Your task to perform on an android device: change the clock style Image 0: 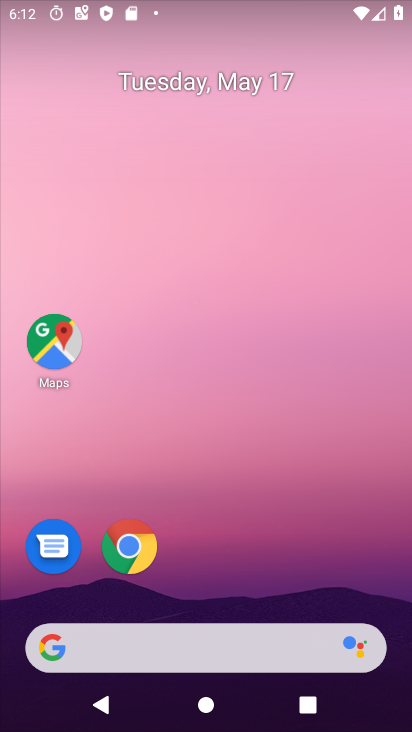
Step 0: click (126, 560)
Your task to perform on an android device: change the clock style Image 1: 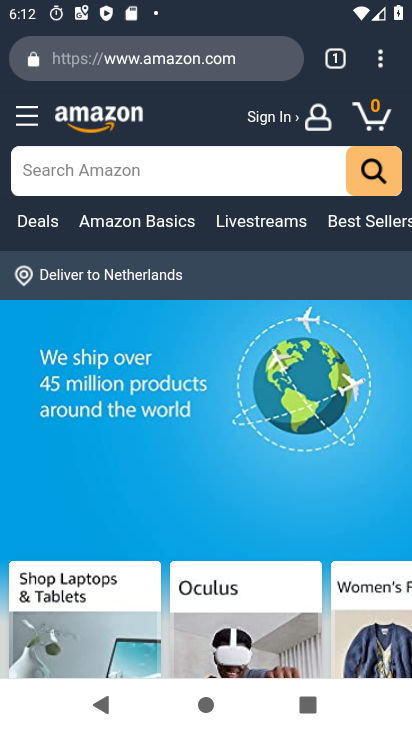
Step 1: press home button
Your task to perform on an android device: change the clock style Image 2: 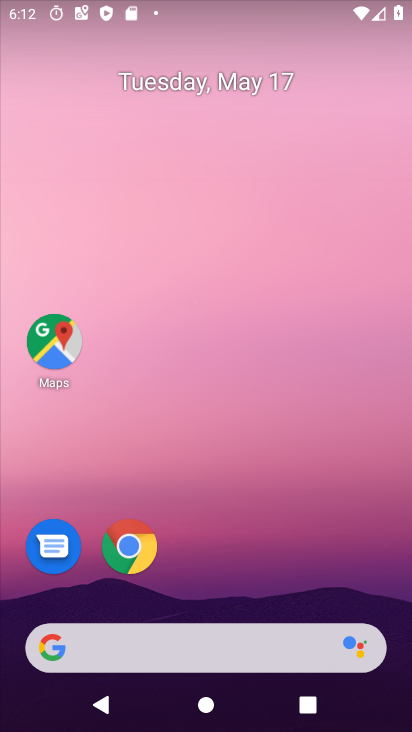
Step 2: drag from (222, 450) to (225, 194)
Your task to perform on an android device: change the clock style Image 3: 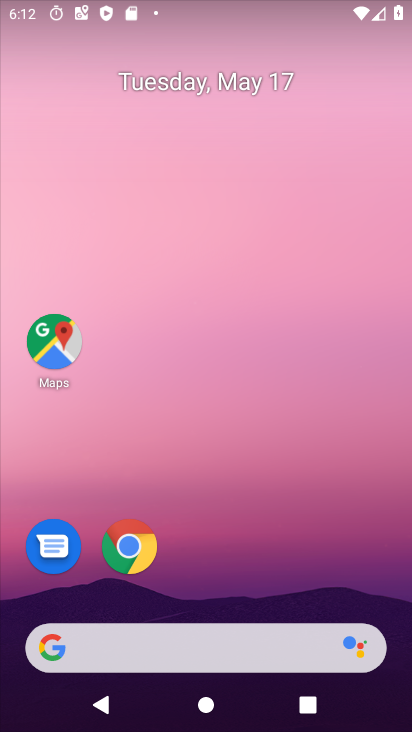
Step 3: drag from (199, 464) to (195, 134)
Your task to perform on an android device: change the clock style Image 4: 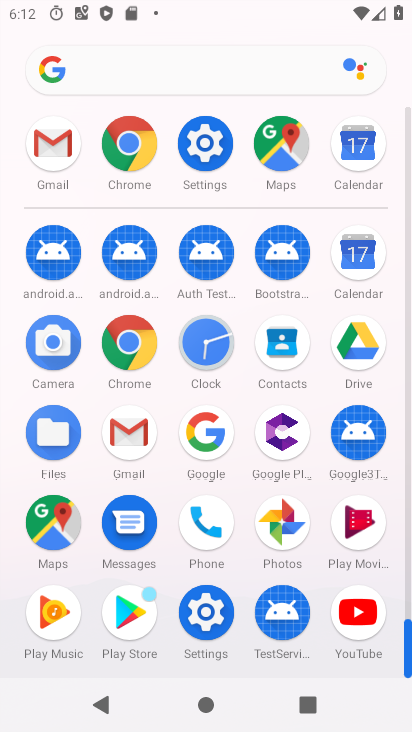
Step 4: click (202, 341)
Your task to perform on an android device: change the clock style Image 5: 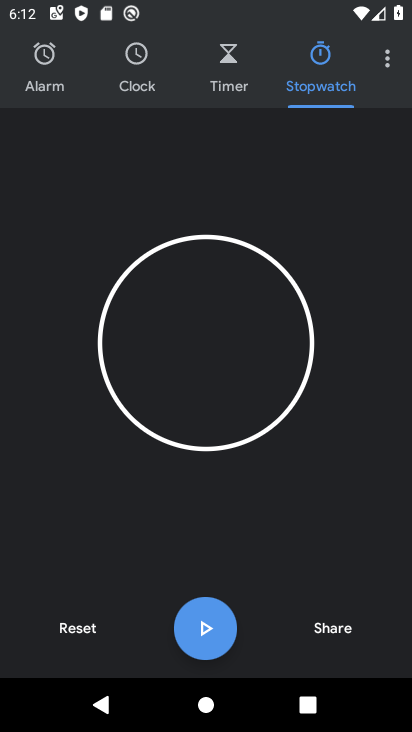
Step 5: click (394, 60)
Your task to perform on an android device: change the clock style Image 6: 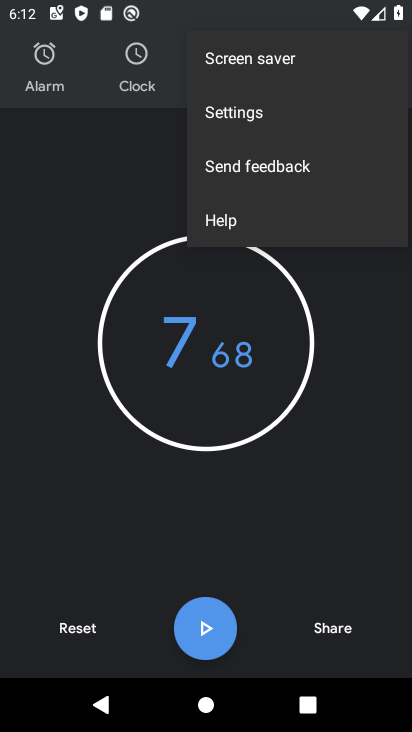
Step 6: click (277, 106)
Your task to perform on an android device: change the clock style Image 7: 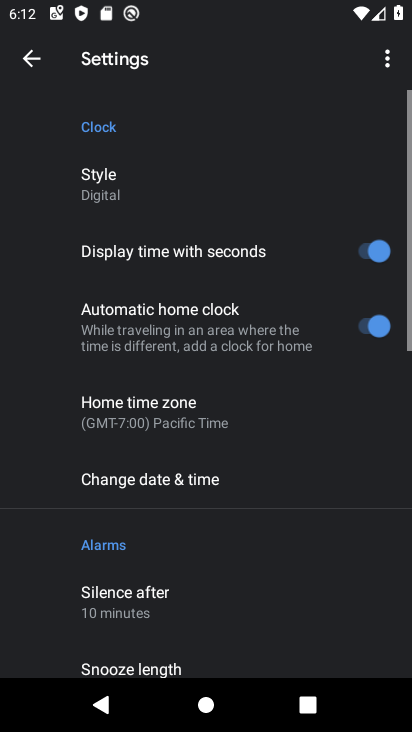
Step 7: click (146, 200)
Your task to perform on an android device: change the clock style Image 8: 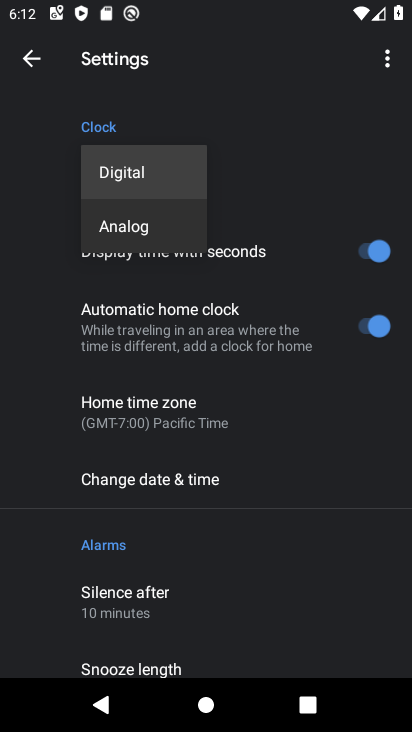
Step 8: click (121, 230)
Your task to perform on an android device: change the clock style Image 9: 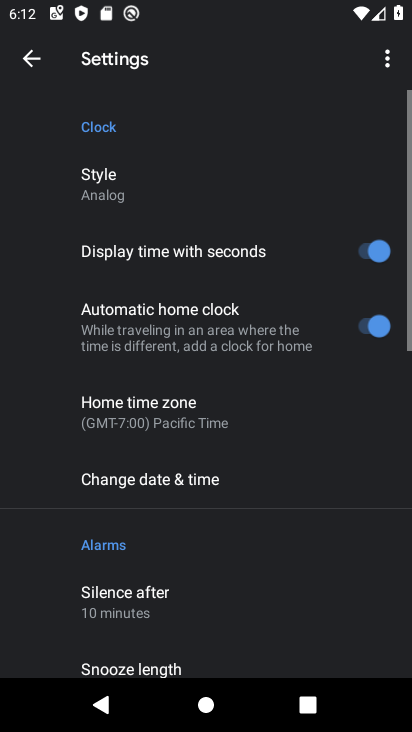
Step 9: task complete